Your task to perform on an android device: find which apps use the phone's location Image 0: 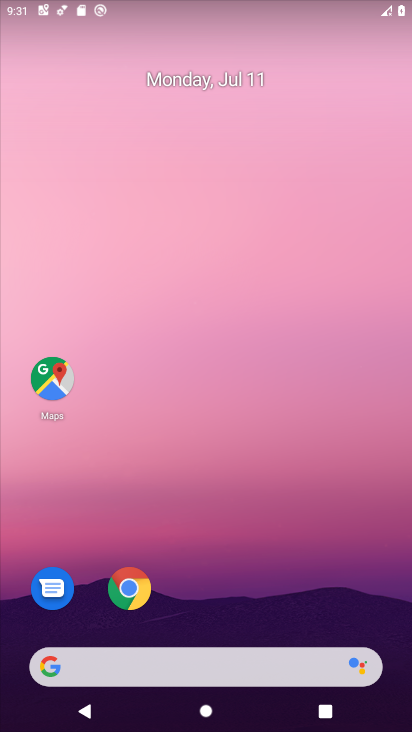
Step 0: drag from (177, 294) to (175, 241)
Your task to perform on an android device: find which apps use the phone's location Image 1: 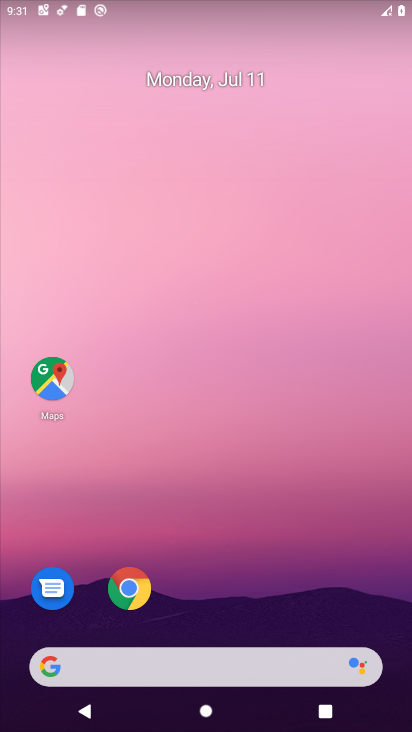
Step 1: drag from (260, 570) to (223, 212)
Your task to perform on an android device: find which apps use the phone's location Image 2: 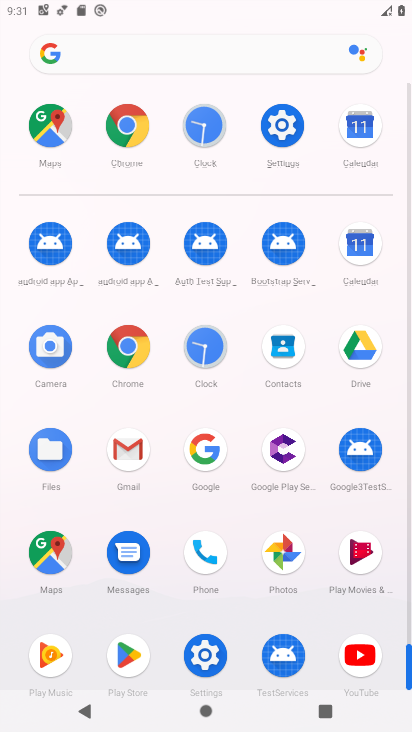
Step 2: click (273, 115)
Your task to perform on an android device: find which apps use the phone's location Image 3: 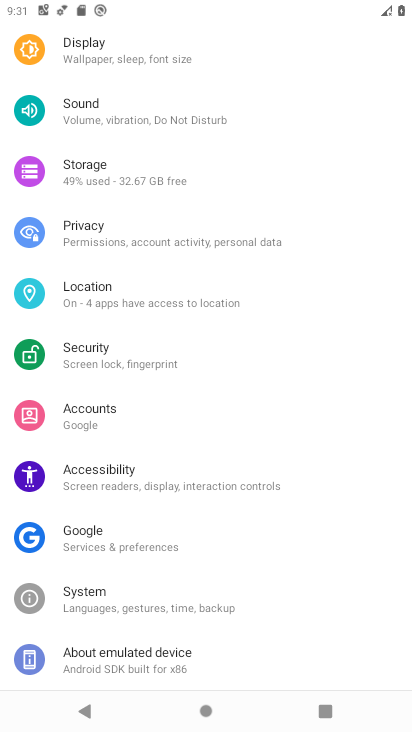
Step 3: click (140, 300)
Your task to perform on an android device: find which apps use the phone's location Image 4: 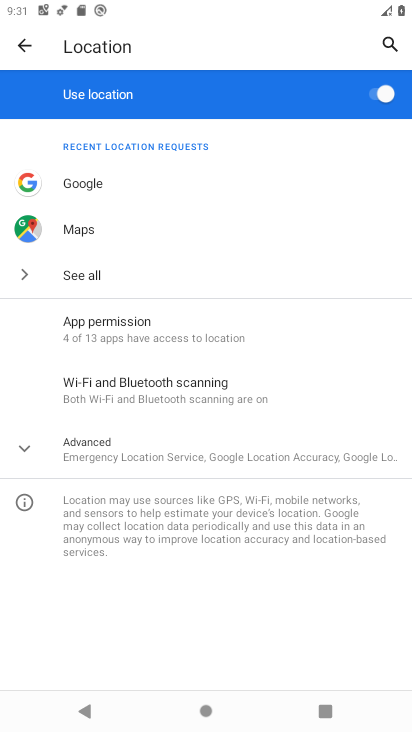
Step 4: task complete